Your task to perform on an android device: Open Google Chrome and open the bookmarks view Image 0: 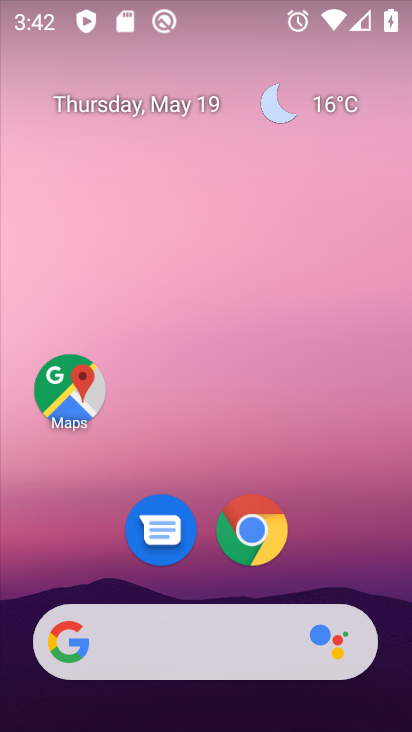
Step 0: click (234, 508)
Your task to perform on an android device: Open Google Chrome and open the bookmarks view Image 1: 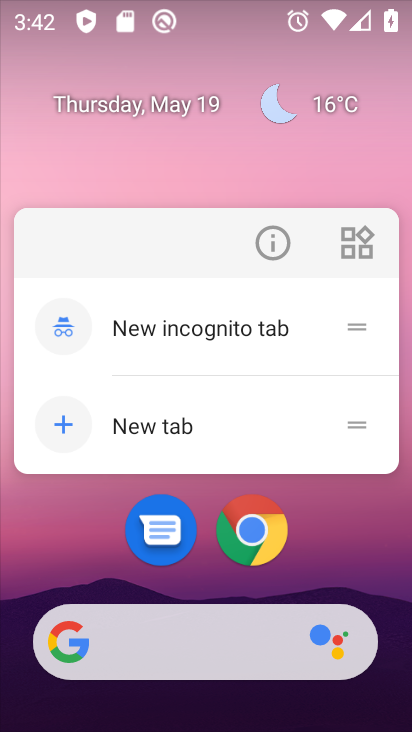
Step 1: click (263, 510)
Your task to perform on an android device: Open Google Chrome and open the bookmarks view Image 2: 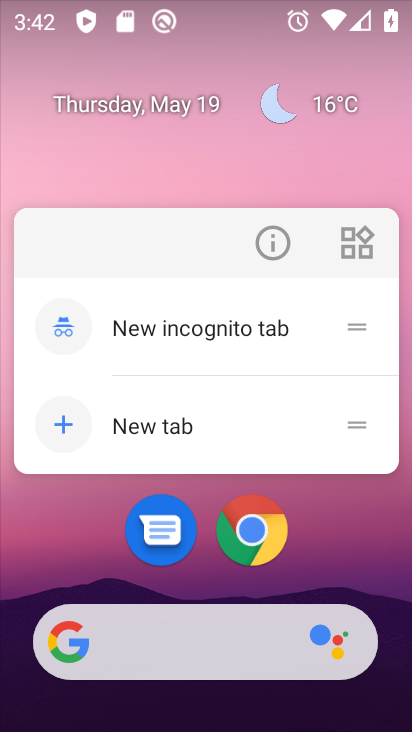
Step 2: click (255, 530)
Your task to perform on an android device: Open Google Chrome and open the bookmarks view Image 3: 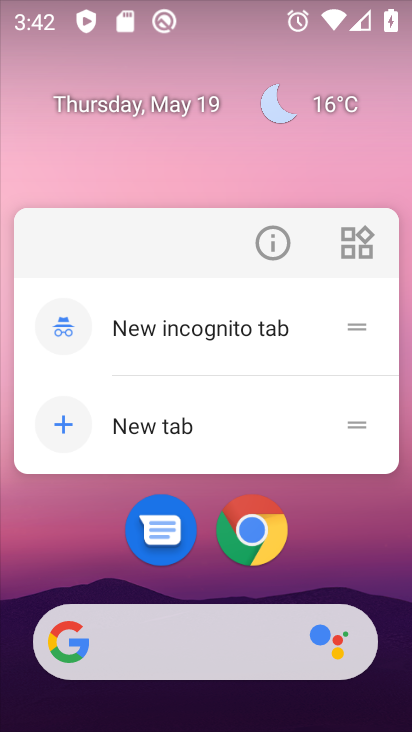
Step 3: click (271, 564)
Your task to perform on an android device: Open Google Chrome and open the bookmarks view Image 4: 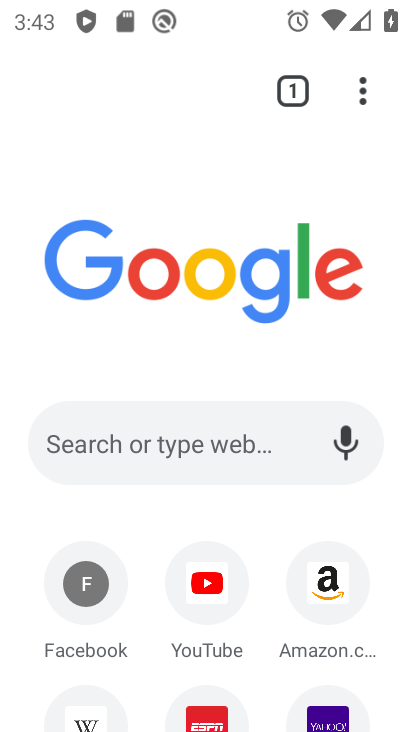
Step 4: task complete